Your task to perform on an android device: turn pop-ups off in chrome Image 0: 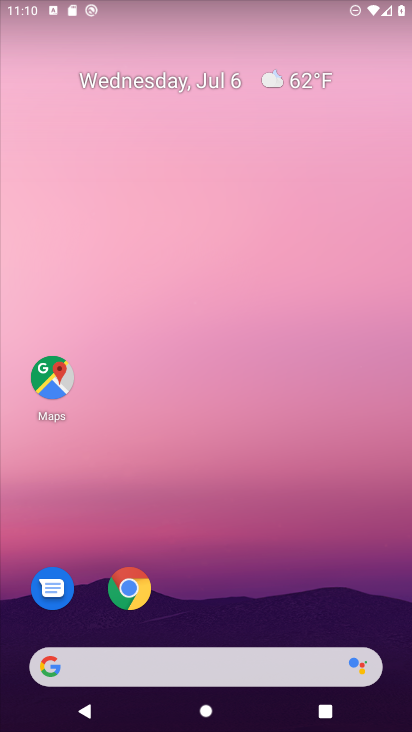
Step 0: click (345, 161)
Your task to perform on an android device: turn pop-ups off in chrome Image 1: 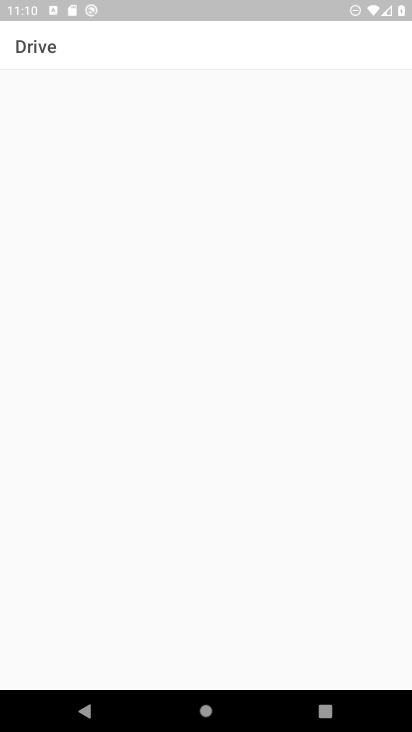
Step 1: press home button
Your task to perform on an android device: turn pop-ups off in chrome Image 2: 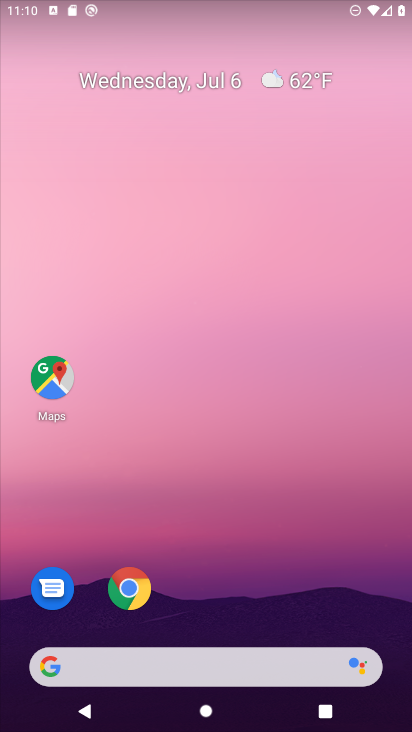
Step 2: click (127, 587)
Your task to perform on an android device: turn pop-ups off in chrome Image 3: 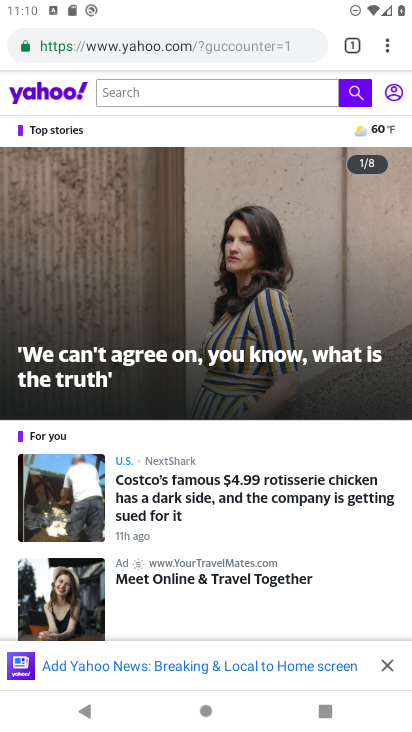
Step 3: click (386, 49)
Your task to perform on an android device: turn pop-ups off in chrome Image 4: 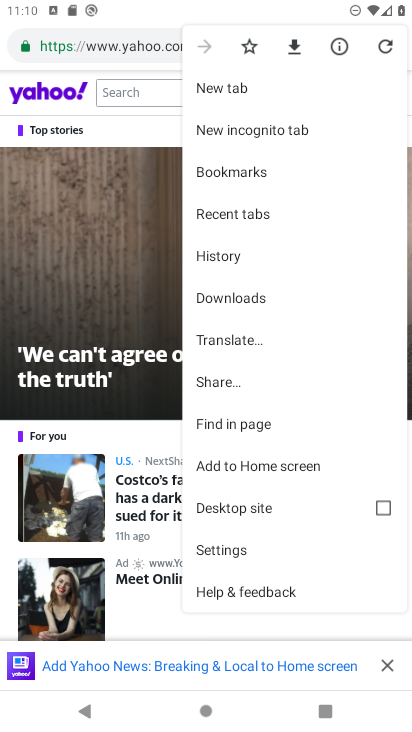
Step 4: click (231, 545)
Your task to perform on an android device: turn pop-ups off in chrome Image 5: 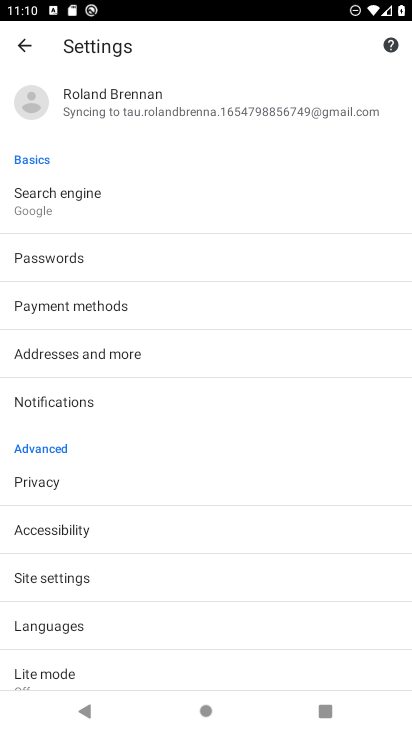
Step 5: click (54, 583)
Your task to perform on an android device: turn pop-ups off in chrome Image 6: 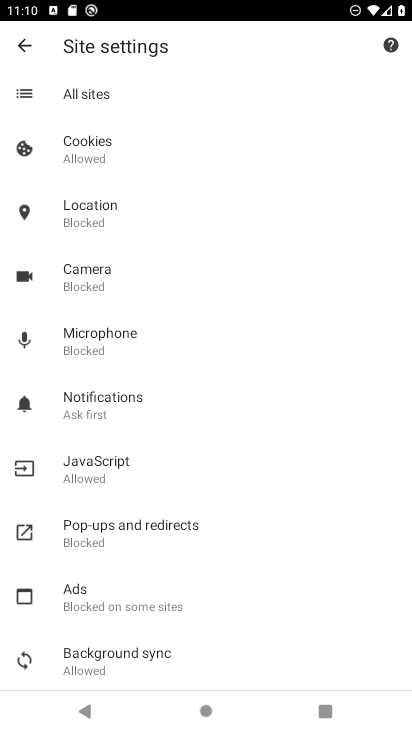
Step 6: click (85, 531)
Your task to perform on an android device: turn pop-ups off in chrome Image 7: 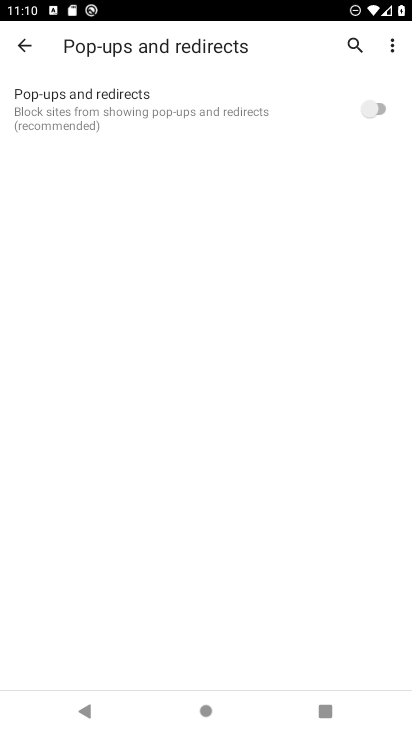
Step 7: task complete